Your task to perform on an android device: add a contact in the contacts app Image 0: 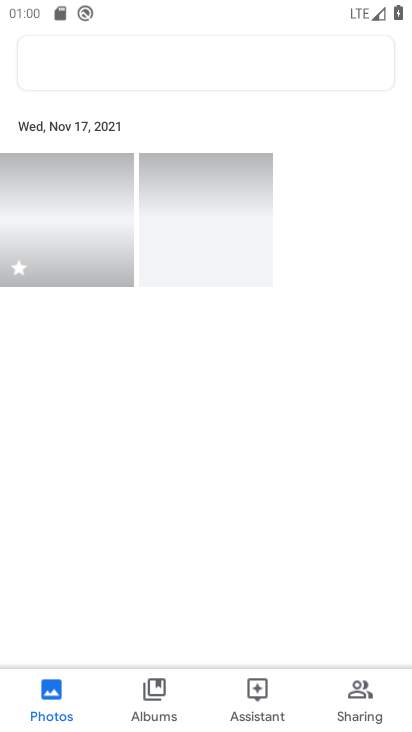
Step 0: drag from (341, 622) to (348, 499)
Your task to perform on an android device: add a contact in the contacts app Image 1: 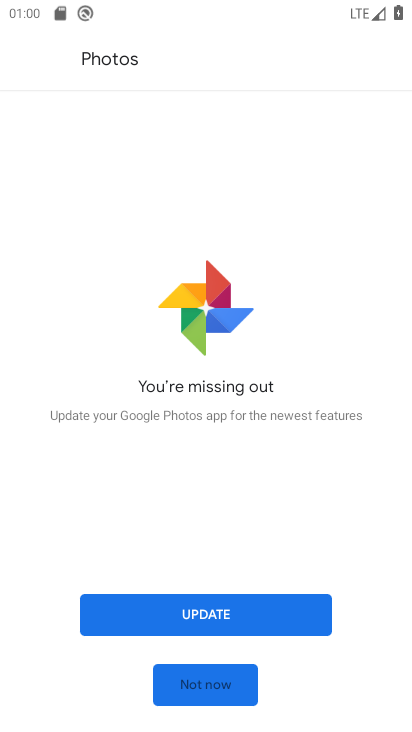
Step 1: press home button
Your task to perform on an android device: add a contact in the contacts app Image 2: 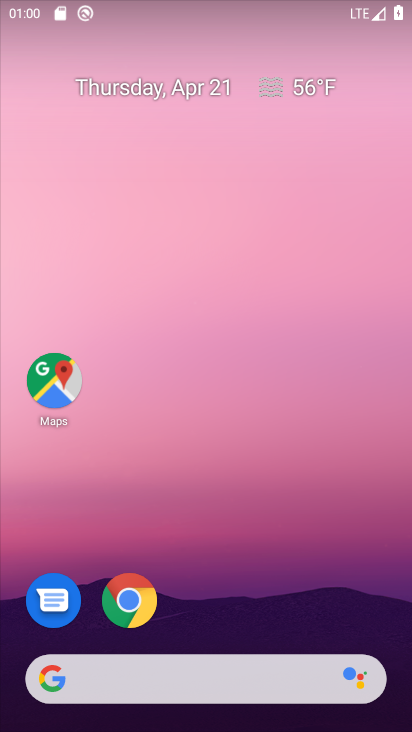
Step 2: drag from (280, 585) to (361, 146)
Your task to perform on an android device: add a contact in the contacts app Image 3: 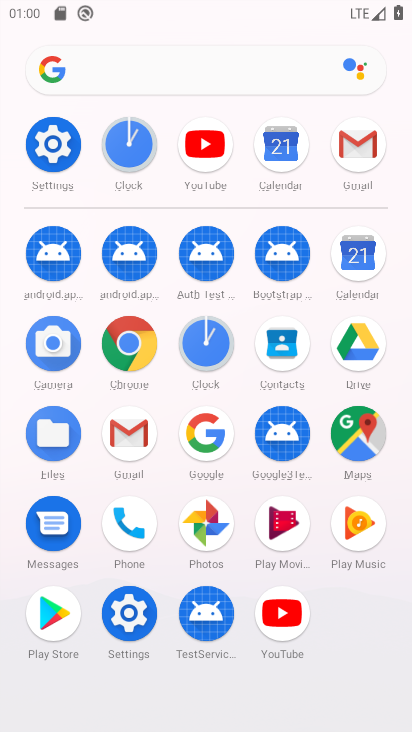
Step 3: click (270, 353)
Your task to perform on an android device: add a contact in the contacts app Image 4: 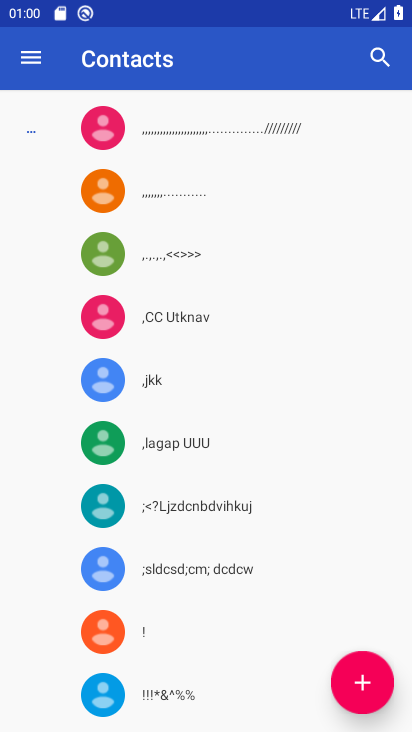
Step 4: click (367, 683)
Your task to perform on an android device: add a contact in the contacts app Image 5: 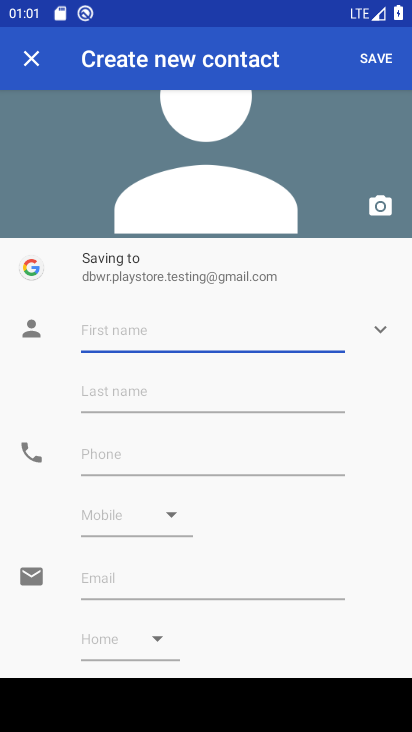
Step 5: type "Jaibajrangbali"
Your task to perform on an android device: add a contact in the contacts app Image 6: 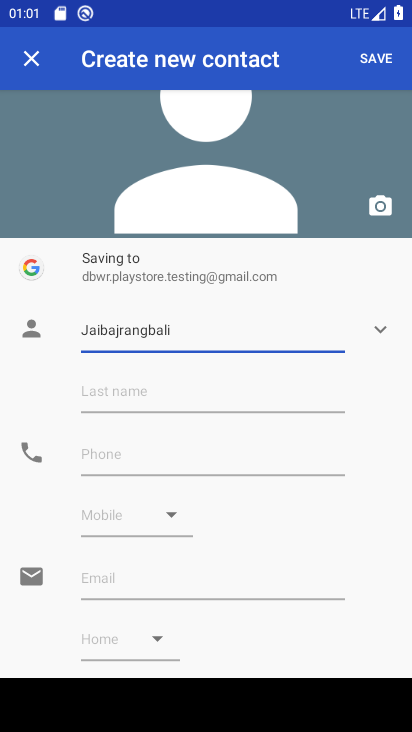
Step 6: click (278, 457)
Your task to perform on an android device: add a contact in the contacts app Image 7: 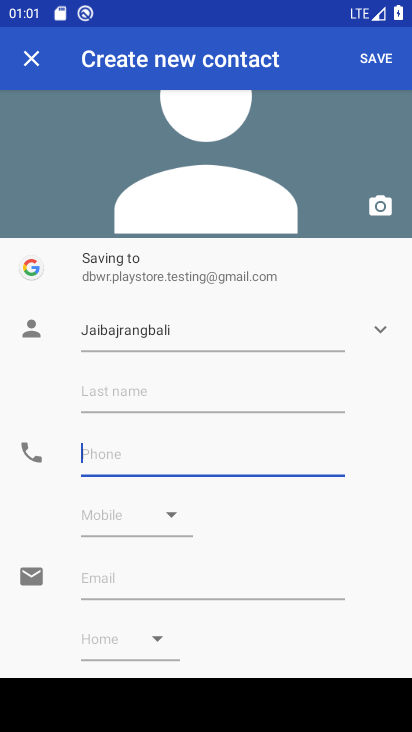
Step 7: type "919999900000"
Your task to perform on an android device: add a contact in the contacts app Image 8: 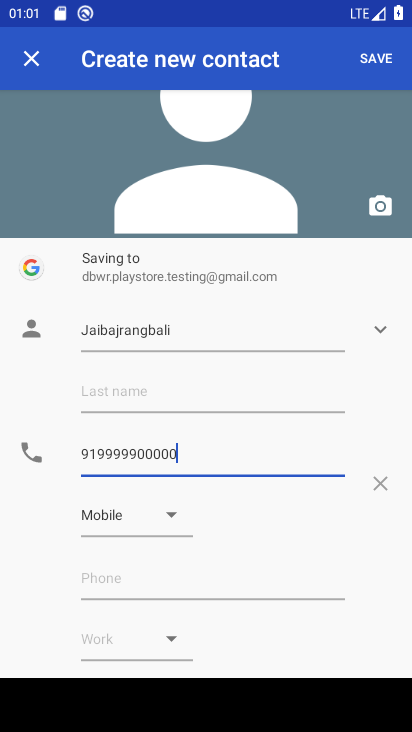
Step 8: click (382, 58)
Your task to perform on an android device: add a contact in the contacts app Image 9: 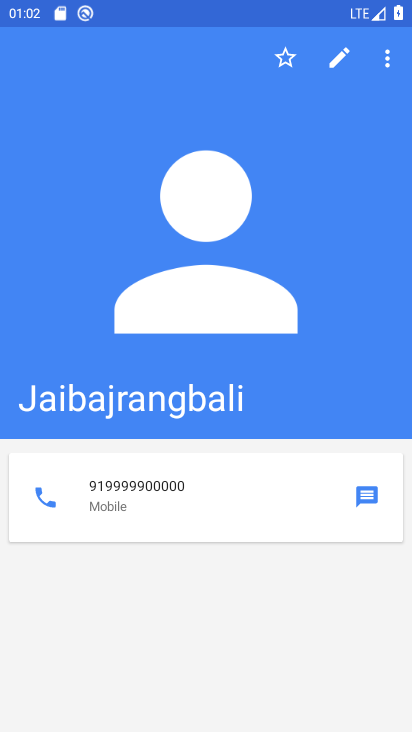
Step 9: task complete